Your task to perform on an android device: Open Google Chrome Image 0: 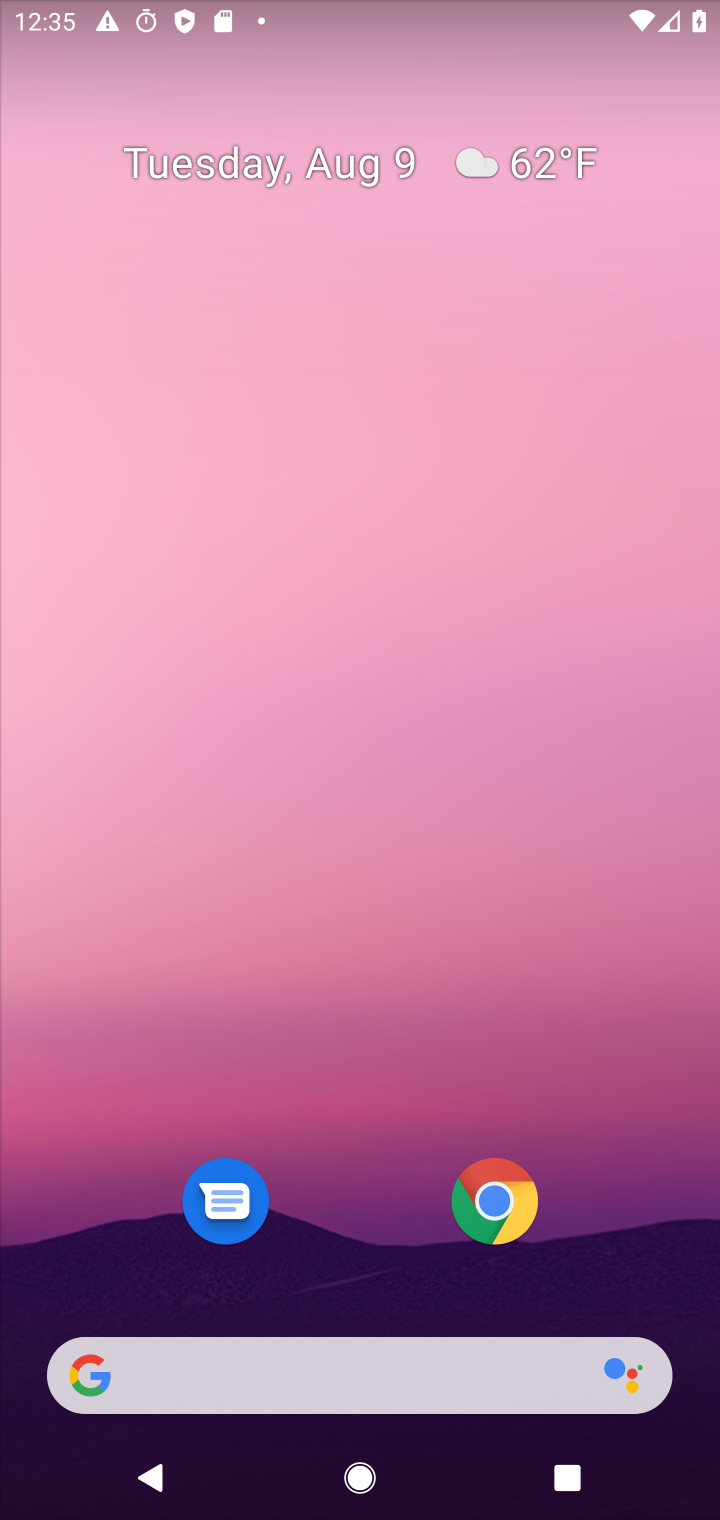
Step 0: click (518, 1212)
Your task to perform on an android device: Open Google Chrome Image 1: 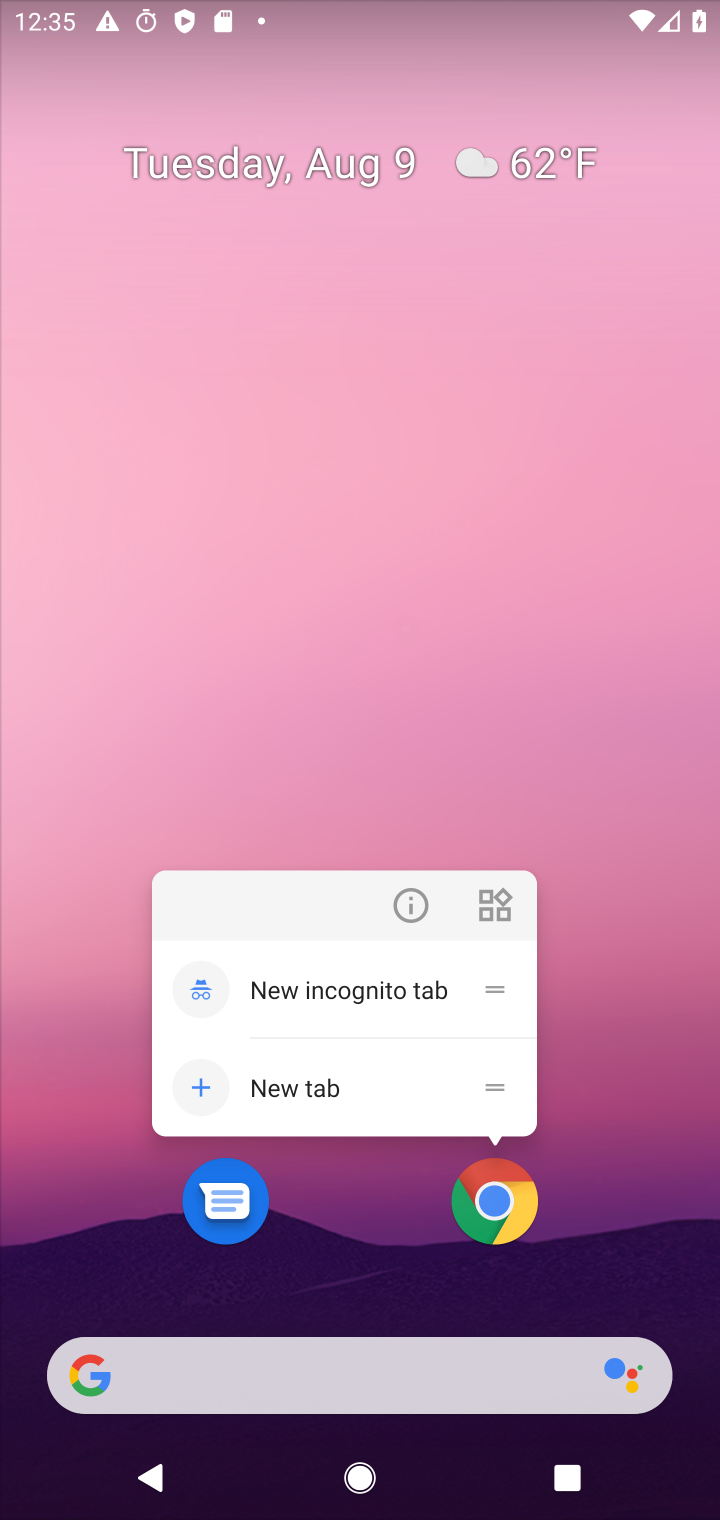
Step 1: click (489, 1177)
Your task to perform on an android device: Open Google Chrome Image 2: 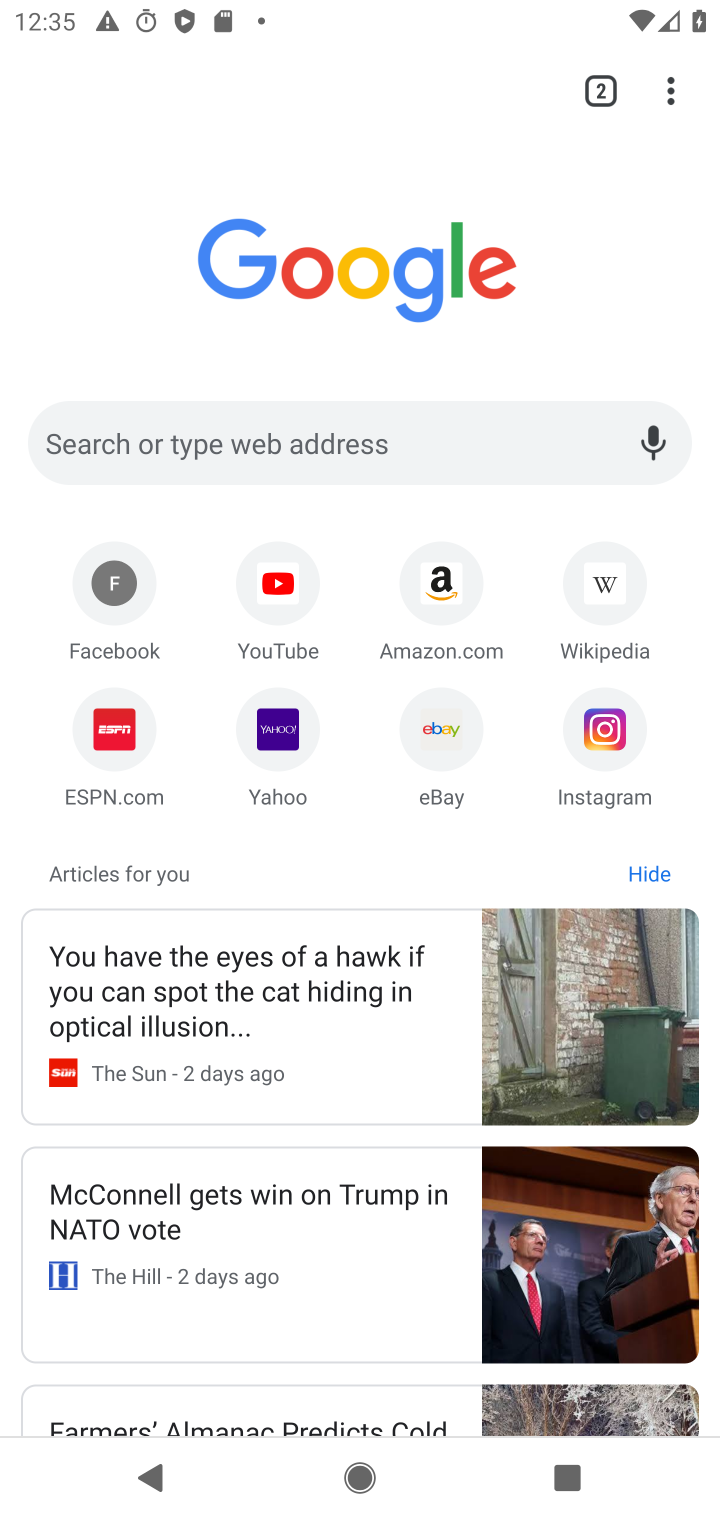
Step 2: task complete